Your task to perform on an android device: turn on translation in the chrome app Image 0: 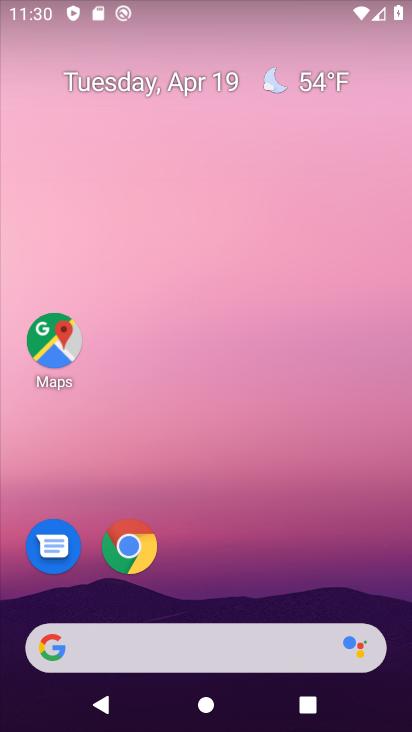
Step 0: click (141, 547)
Your task to perform on an android device: turn on translation in the chrome app Image 1: 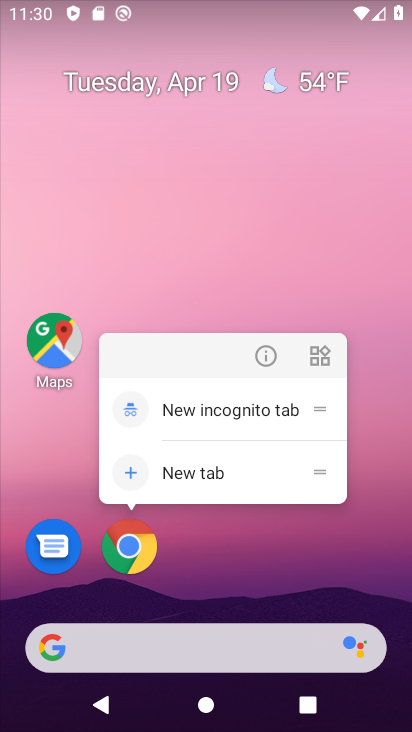
Step 1: click (132, 555)
Your task to perform on an android device: turn on translation in the chrome app Image 2: 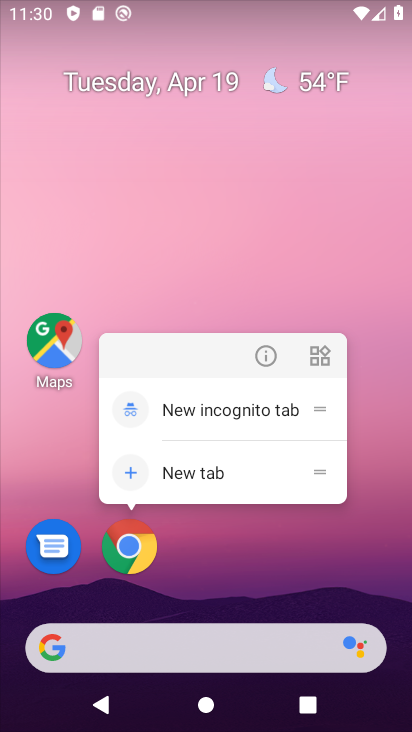
Step 2: click (132, 555)
Your task to perform on an android device: turn on translation in the chrome app Image 3: 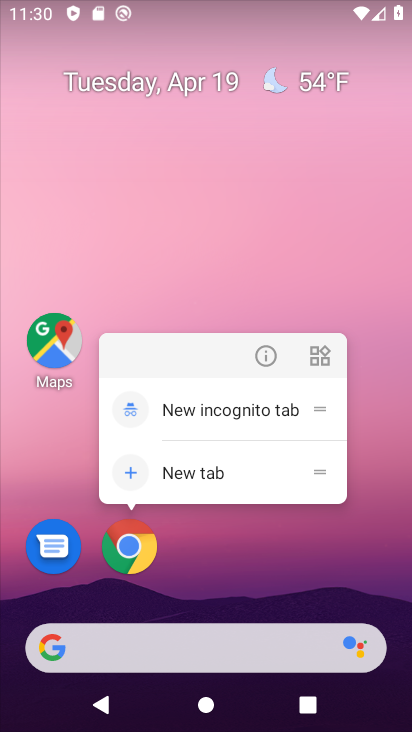
Step 3: click (132, 555)
Your task to perform on an android device: turn on translation in the chrome app Image 4: 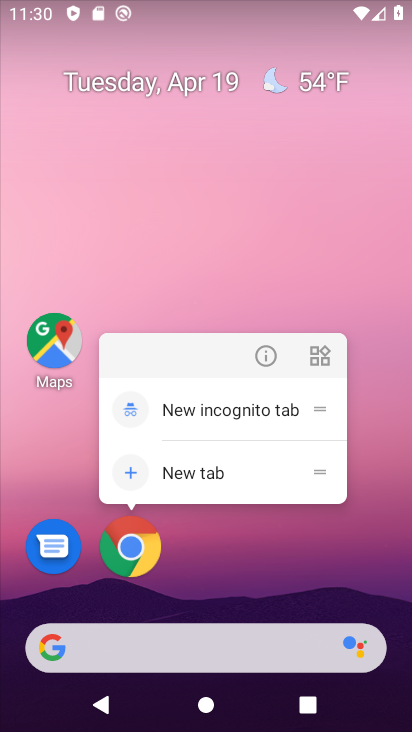
Step 4: click (132, 555)
Your task to perform on an android device: turn on translation in the chrome app Image 5: 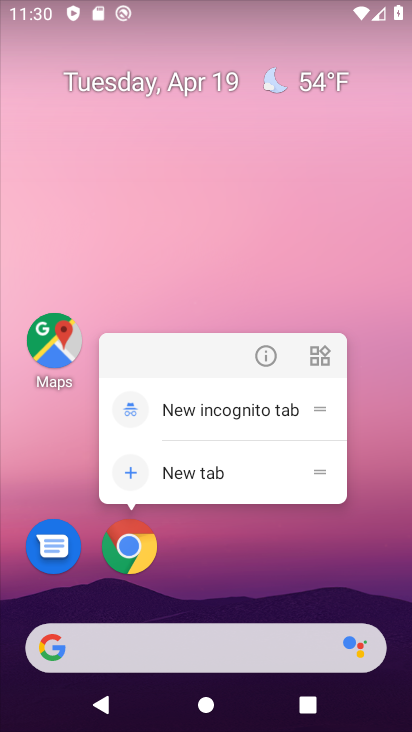
Step 5: click (132, 555)
Your task to perform on an android device: turn on translation in the chrome app Image 6: 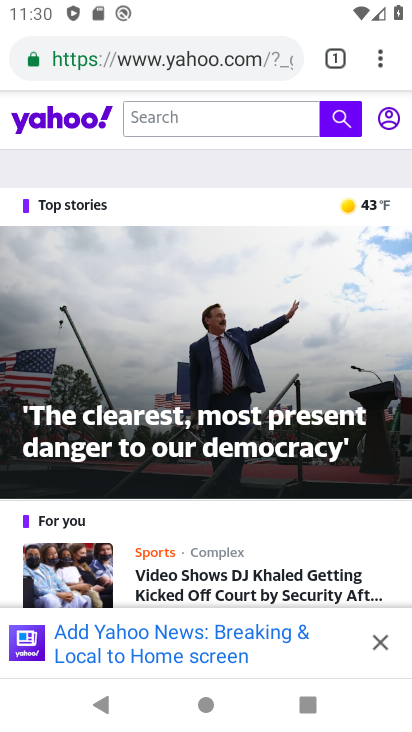
Step 6: drag from (376, 58) to (287, 574)
Your task to perform on an android device: turn on translation in the chrome app Image 7: 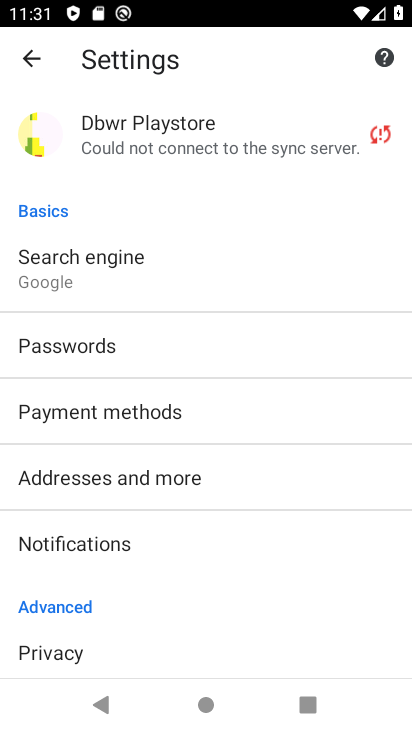
Step 7: drag from (302, 441) to (197, 56)
Your task to perform on an android device: turn on translation in the chrome app Image 8: 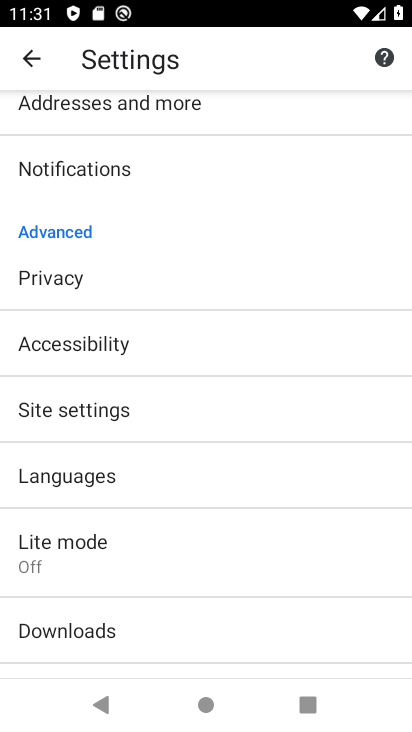
Step 8: click (129, 478)
Your task to perform on an android device: turn on translation in the chrome app Image 9: 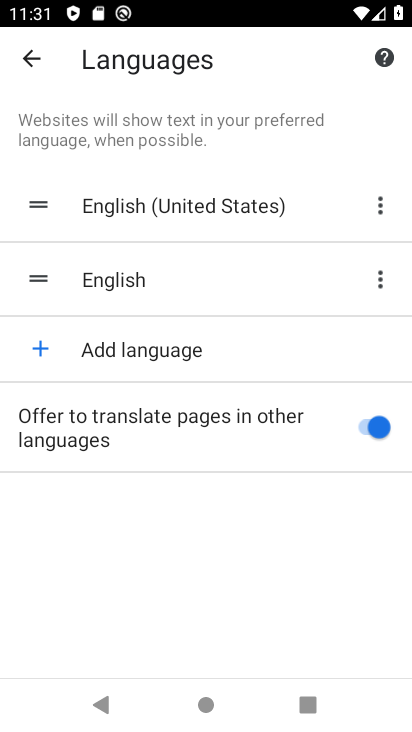
Step 9: task complete